Your task to perform on an android device: Go to location settings Image 0: 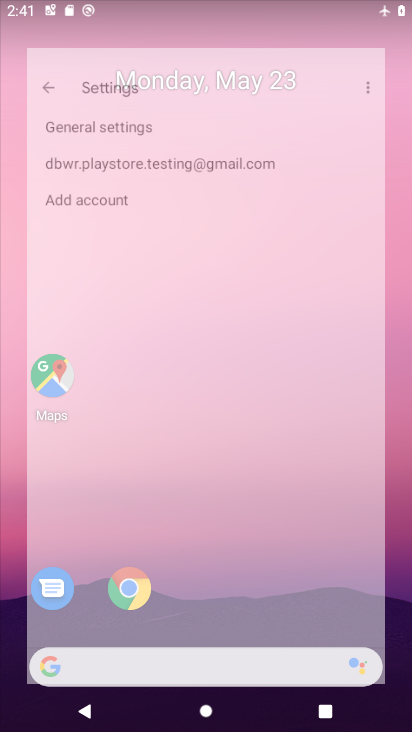
Step 0: drag from (220, 534) to (278, 111)
Your task to perform on an android device: Go to location settings Image 1: 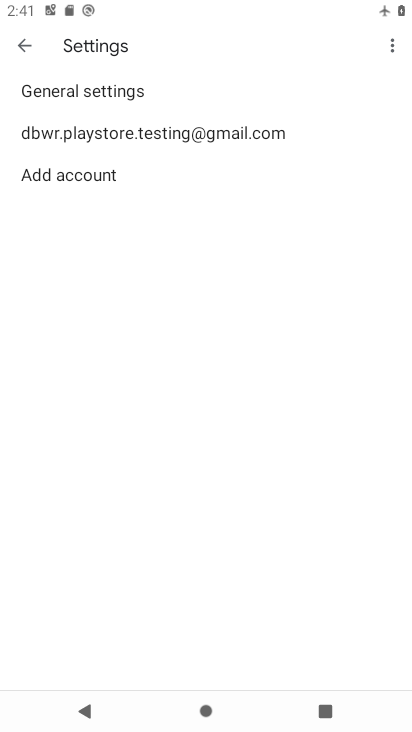
Step 1: press home button
Your task to perform on an android device: Go to location settings Image 2: 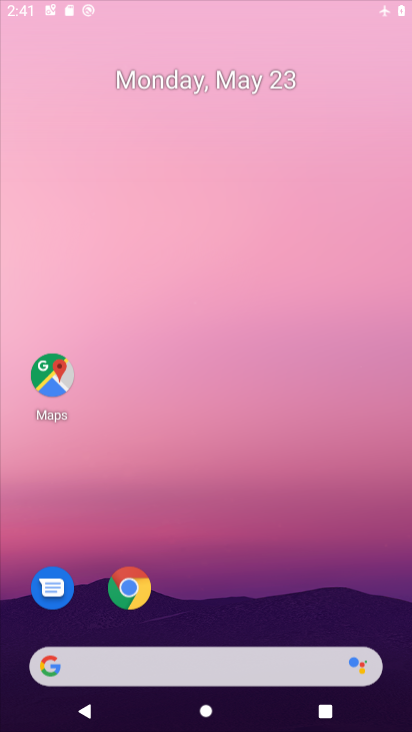
Step 2: drag from (187, 589) to (285, 70)
Your task to perform on an android device: Go to location settings Image 3: 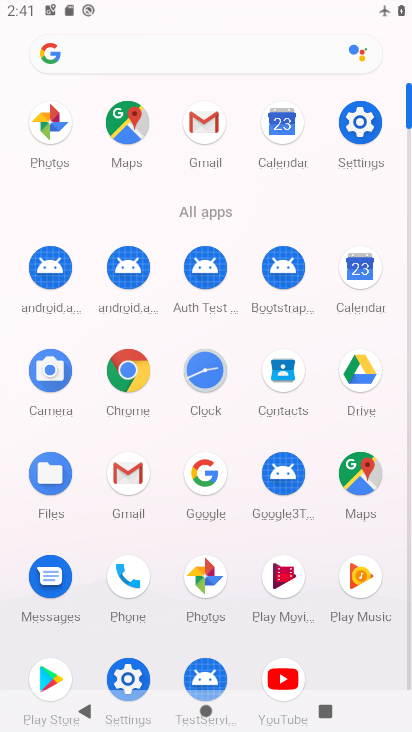
Step 3: click (367, 122)
Your task to perform on an android device: Go to location settings Image 4: 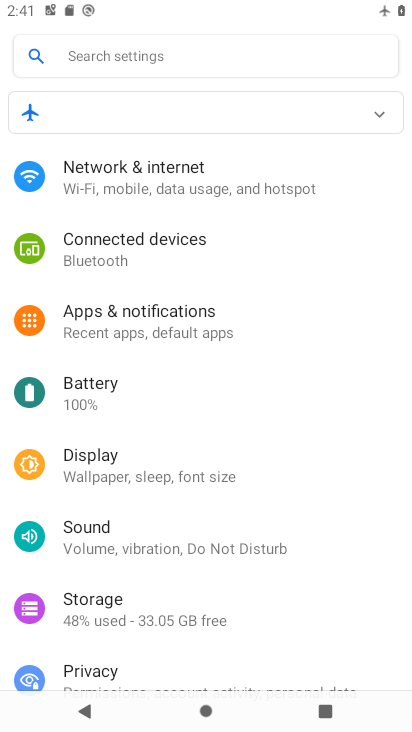
Step 4: drag from (184, 622) to (316, 188)
Your task to perform on an android device: Go to location settings Image 5: 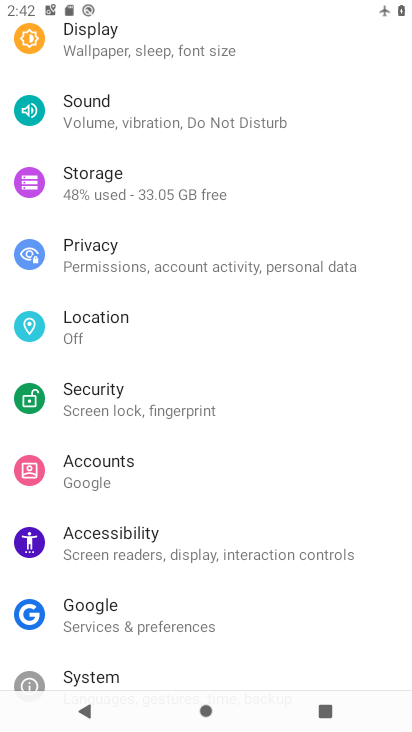
Step 5: click (130, 338)
Your task to perform on an android device: Go to location settings Image 6: 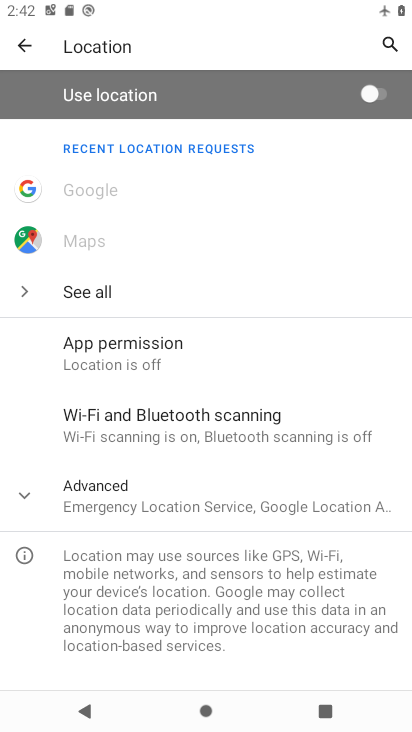
Step 6: task complete